Your task to perform on an android device: Open battery settings Image 0: 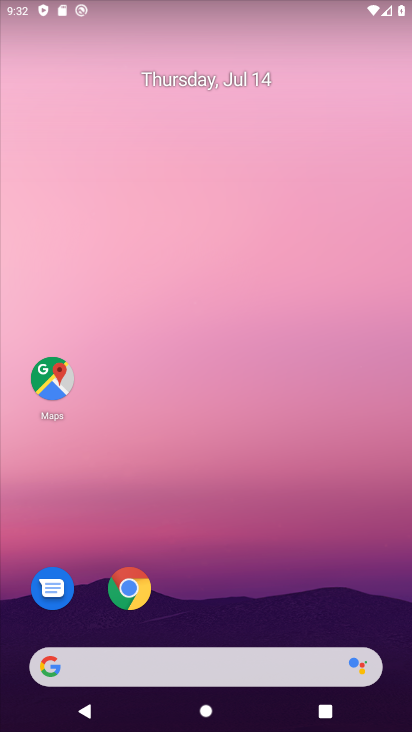
Step 0: drag from (191, 638) to (219, 2)
Your task to perform on an android device: Open battery settings Image 1: 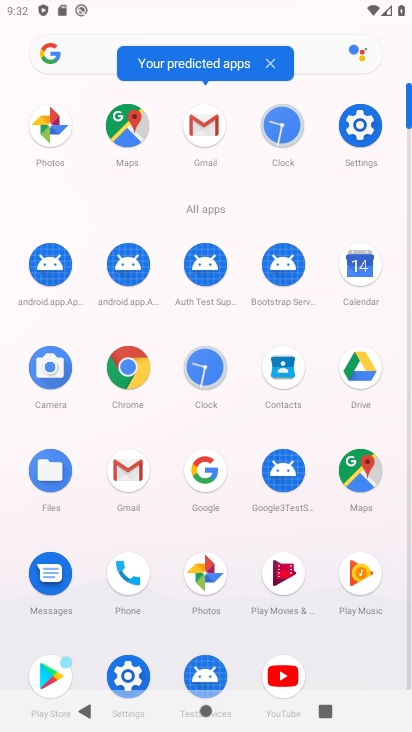
Step 1: click (130, 671)
Your task to perform on an android device: Open battery settings Image 2: 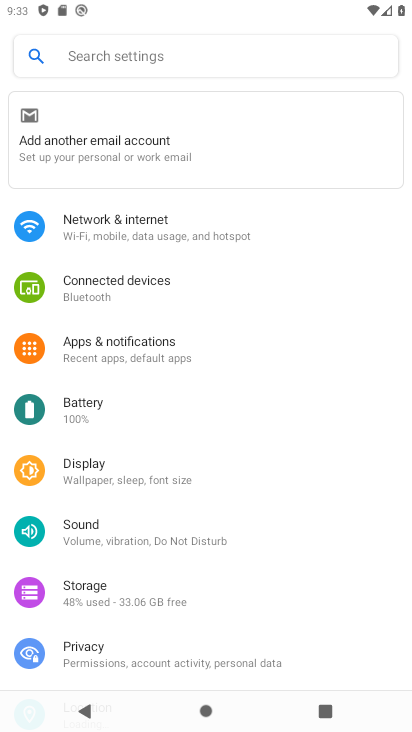
Step 2: click (99, 419)
Your task to perform on an android device: Open battery settings Image 3: 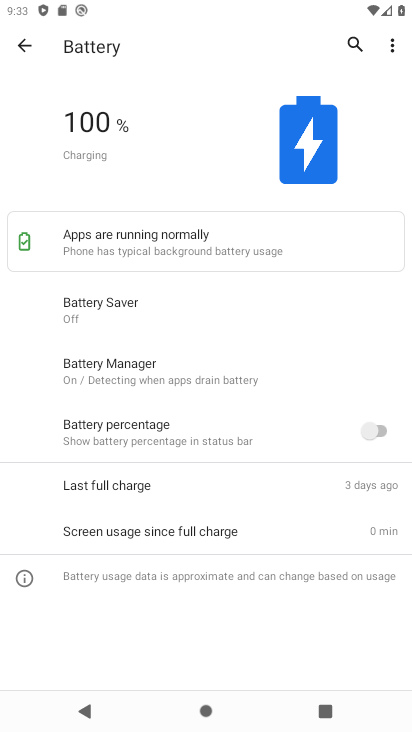
Step 3: task complete